Your task to perform on an android device: toggle notifications settings in the gmail app Image 0: 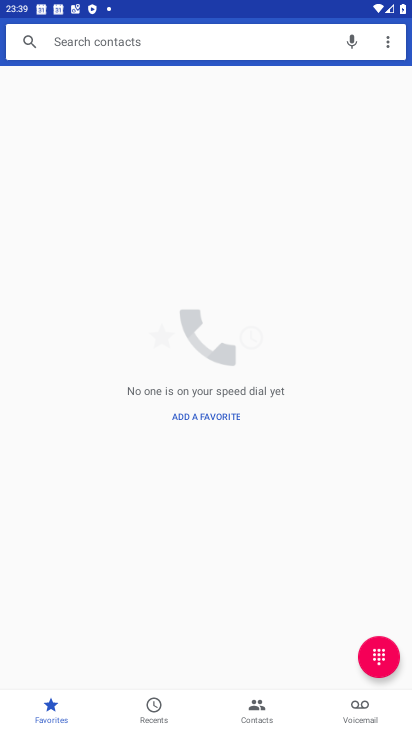
Step 0: press back button
Your task to perform on an android device: toggle notifications settings in the gmail app Image 1: 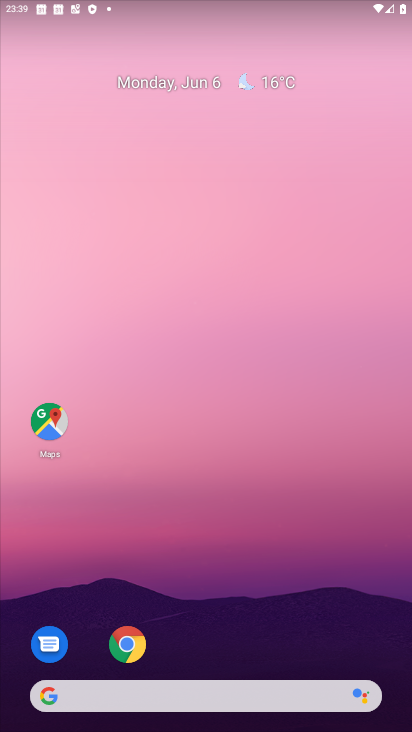
Step 1: drag from (252, 595) to (235, 23)
Your task to perform on an android device: toggle notifications settings in the gmail app Image 2: 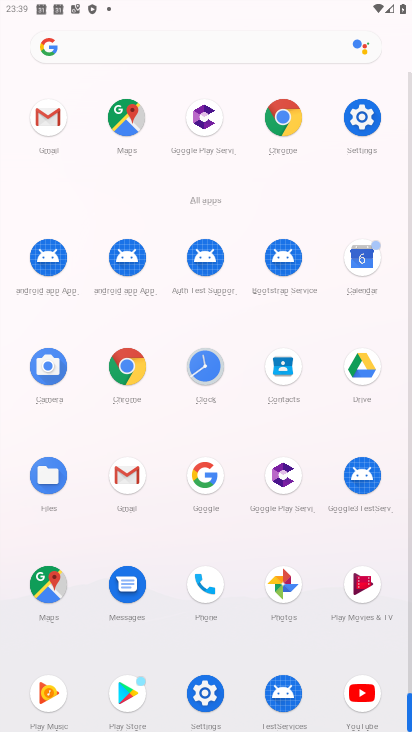
Step 2: click (47, 113)
Your task to perform on an android device: toggle notifications settings in the gmail app Image 3: 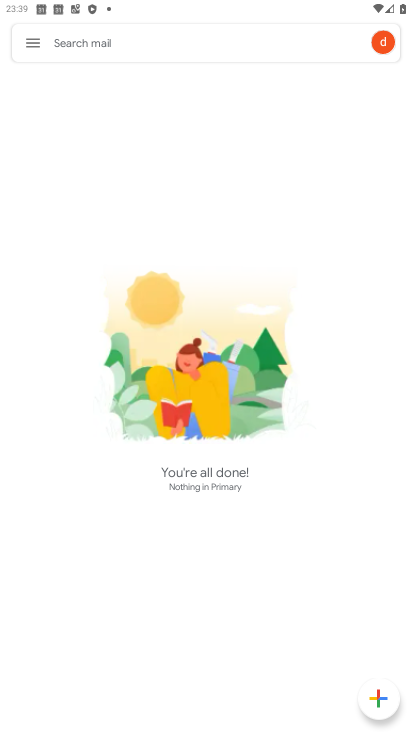
Step 3: click (28, 40)
Your task to perform on an android device: toggle notifications settings in the gmail app Image 4: 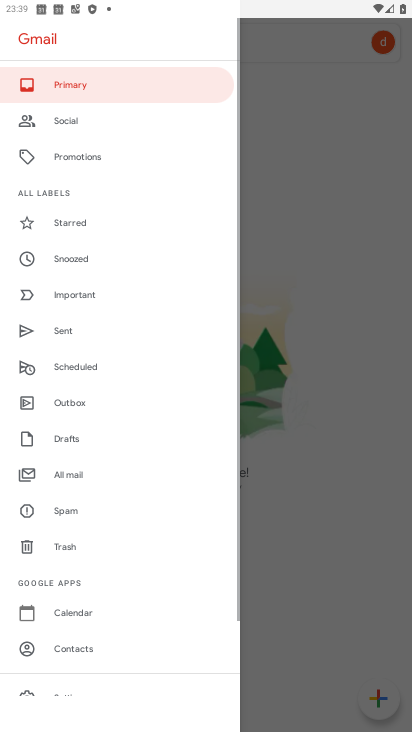
Step 4: drag from (130, 585) to (135, 84)
Your task to perform on an android device: toggle notifications settings in the gmail app Image 5: 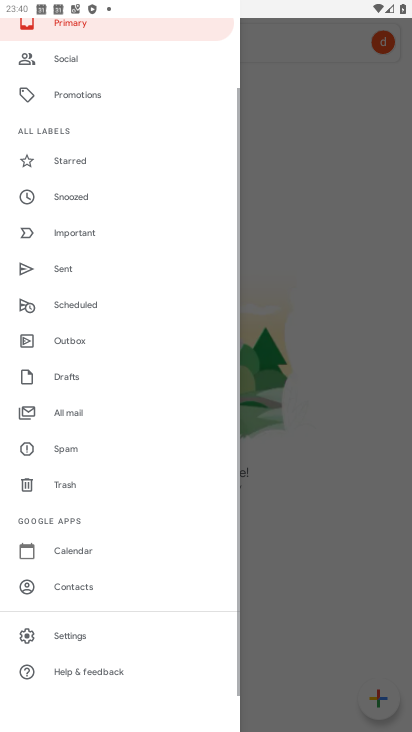
Step 5: click (85, 637)
Your task to perform on an android device: toggle notifications settings in the gmail app Image 6: 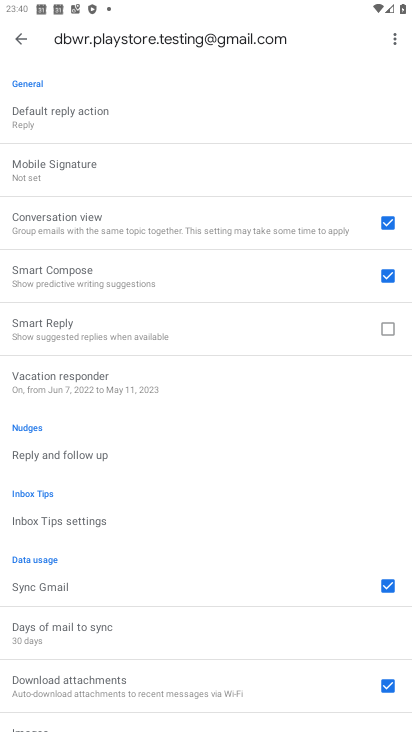
Step 6: drag from (205, 526) to (189, 154)
Your task to perform on an android device: toggle notifications settings in the gmail app Image 7: 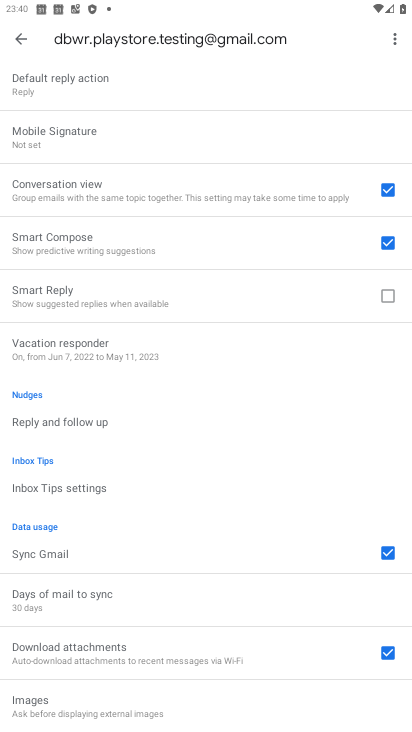
Step 7: drag from (197, 301) to (182, 604)
Your task to perform on an android device: toggle notifications settings in the gmail app Image 8: 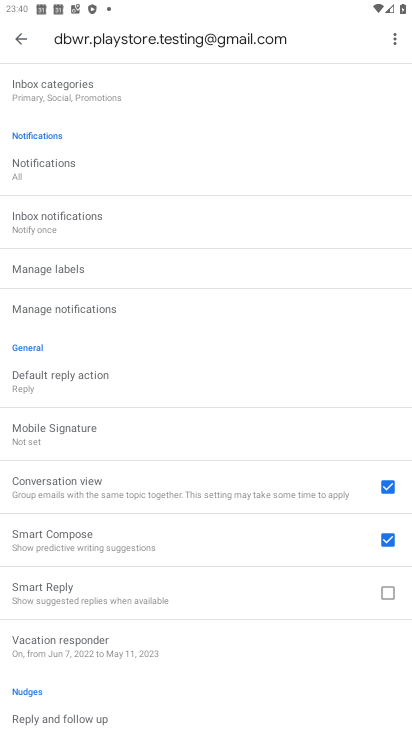
Step 8: click (103, 314)
Your task to perform on an android device: toggle notifications settings in the gmail app Image 9: 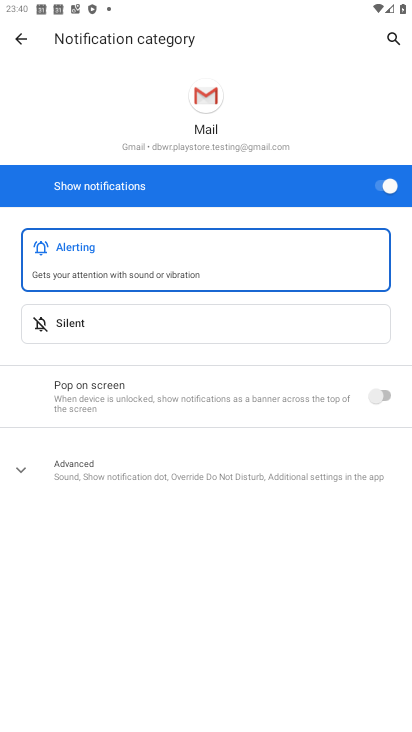
Step 9: click (384, 183)
Your task to perform on an android device: toggle notifications settings in the gmail app Image 10: 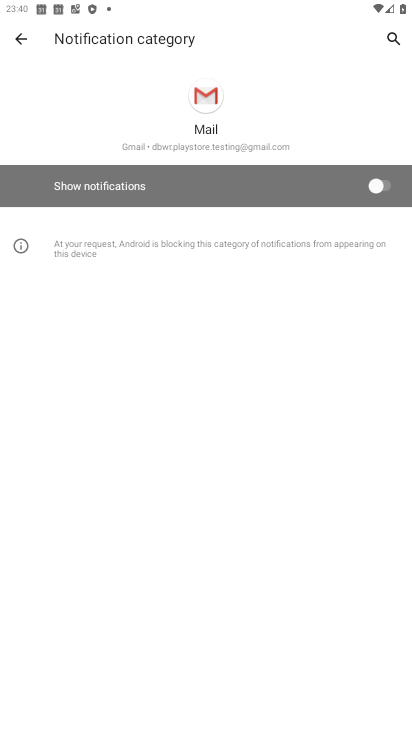
Step 10: task complete